Your task to perform on an android device: Go to ESPN.com Image 0: 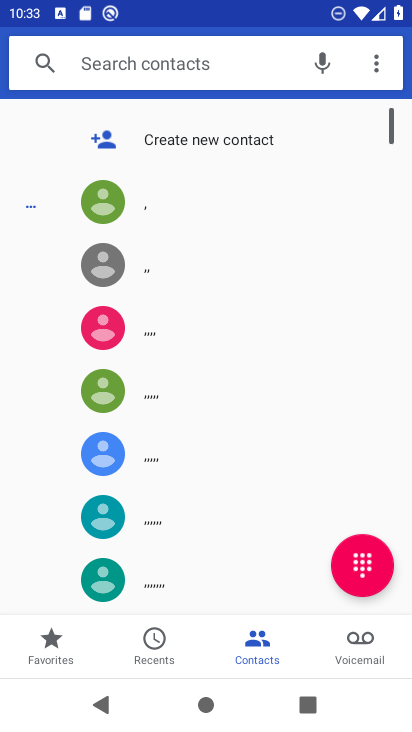
Step 0: press home button
Your task to perform on an android device: Go to ESPN.com Image 1: 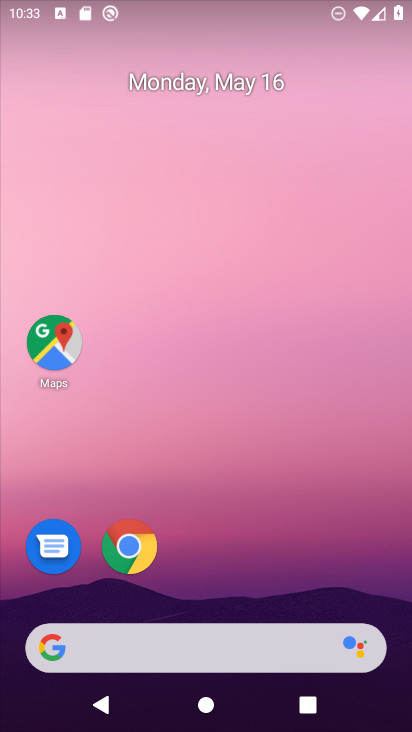
Step 1: click (144, 540)
Your task to perform on an android device: Go to ESPN.com Image 2: 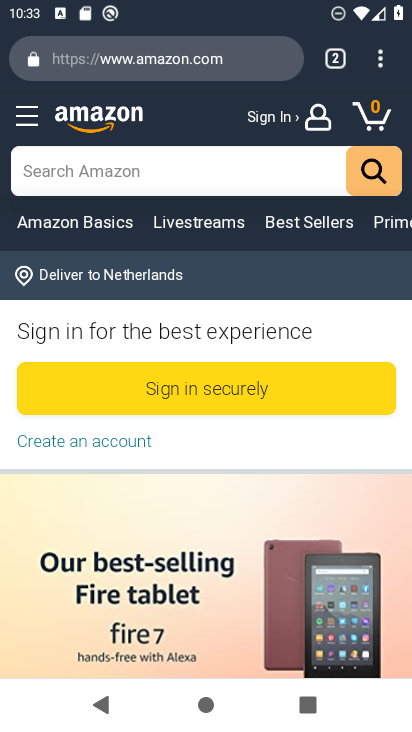
Step 2: click (246, 59)
Your task to perform on an android device: Go to ESPN.com Image 3: 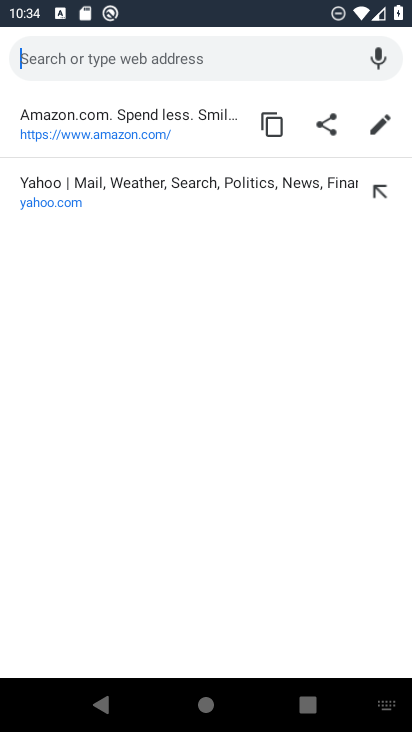
Step 3: type "espn.com"
Your task to perform on an android device: Go to ESPN.com Image 4: 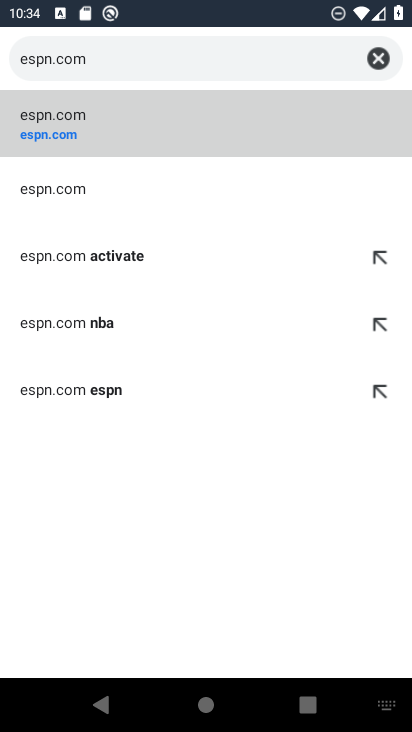
Step 4: click (149, 137)
Your task to perform on an android device: Go to ESPN.com Image 5: 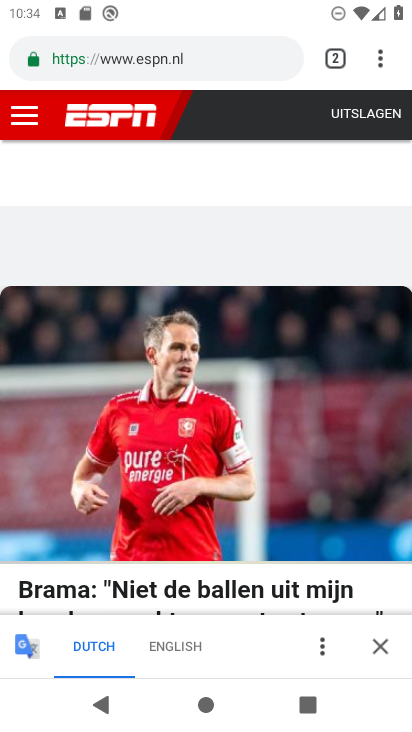
Step 5: task complete